Your task to perform on an android device: Go to ESPN.com Image 0: 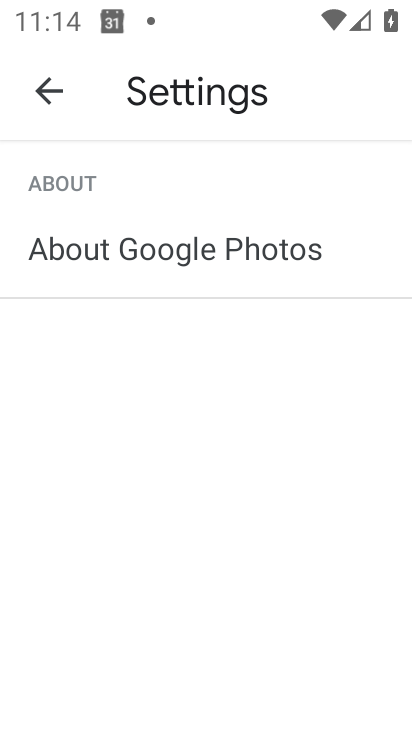
Step 0: press home button
Your task to perform on an android device: Go to ESPN.com Image 1: 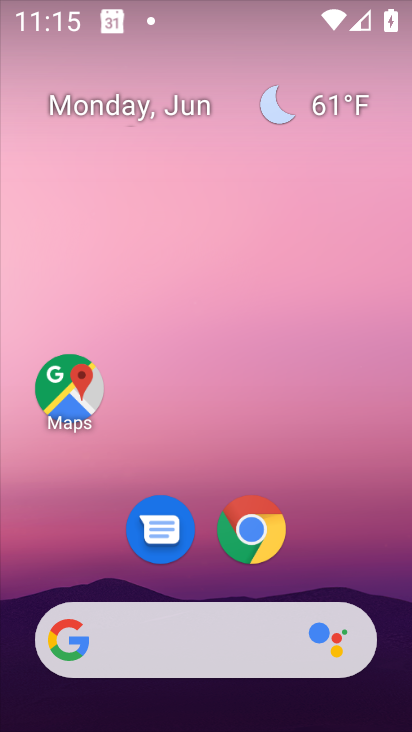
Step 1: click (265, 540)
Your task to perform on an android device: Go to ESPN.com Image 2: 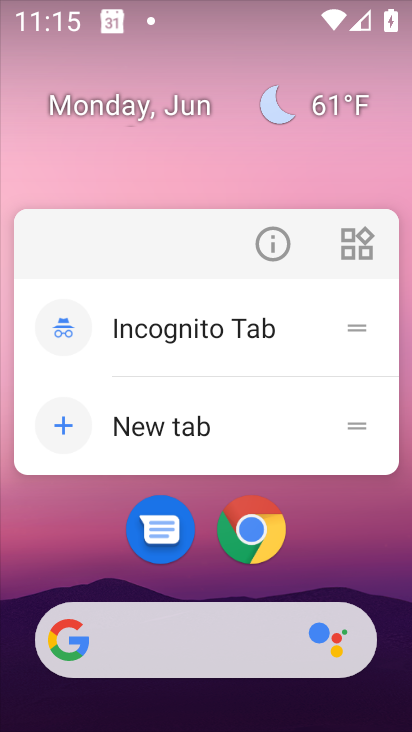
Step 2: click (265, 540)
Your task to perform on an android device: Go to ESPN.com Image 3: 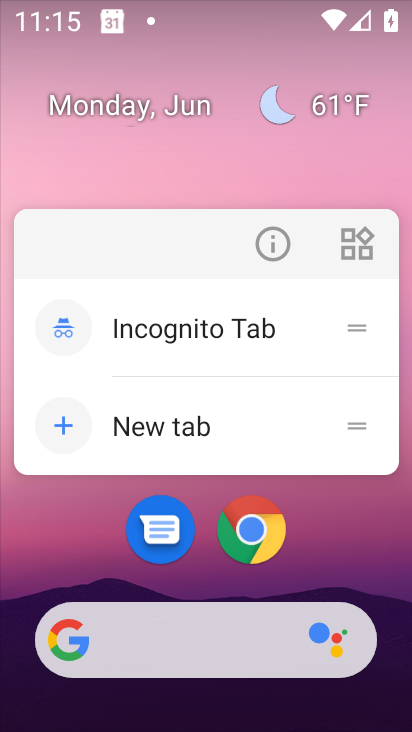
Step 3: click (260, 538)
Your task to perform on an android device: Go to ESPN.com Image 4: 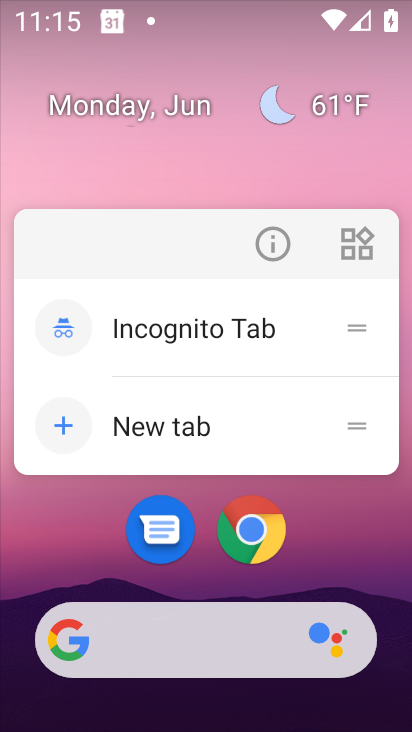
Step 4: click (251, 539)
Your task to perform on an android device: Go to ESPN.com Image 5: 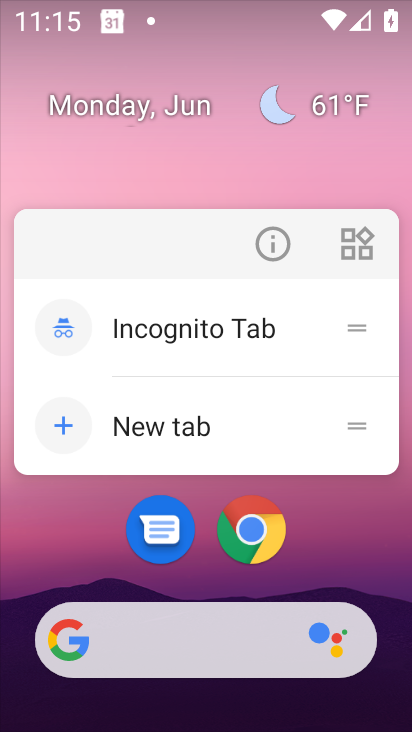
Step 5: click (255, 553)
Your task to perform on an android device: Go to ESPN.com Image 6: 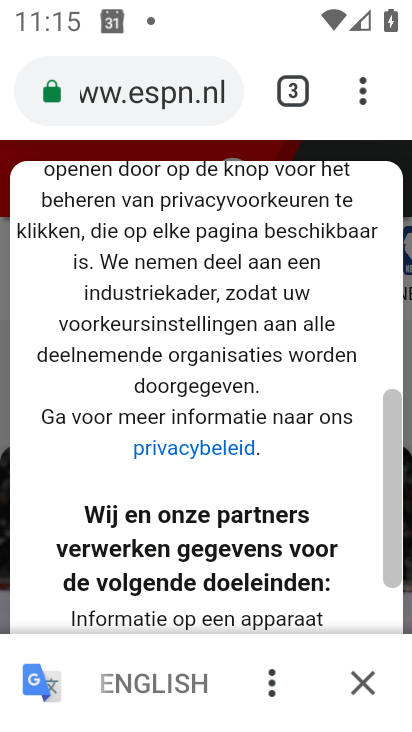
Step 6: click (370, 666)
Your task to perform on an android device: Go to ESPN.com Image 7: 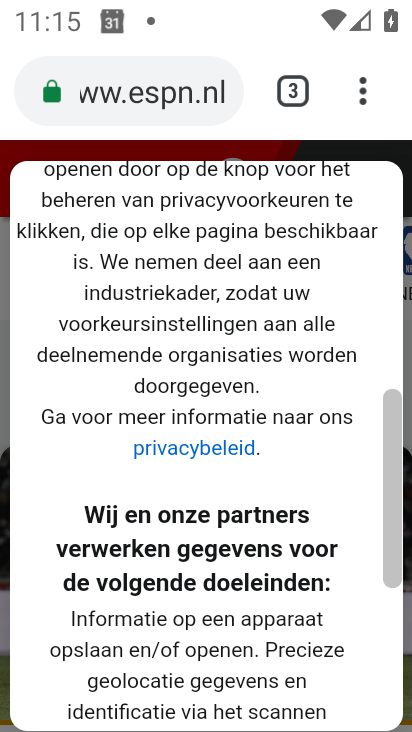
Step 7: drag from (268, 673) to (373, 292)
Your task to perform on an android device: Go to ESPN.com Image 8: 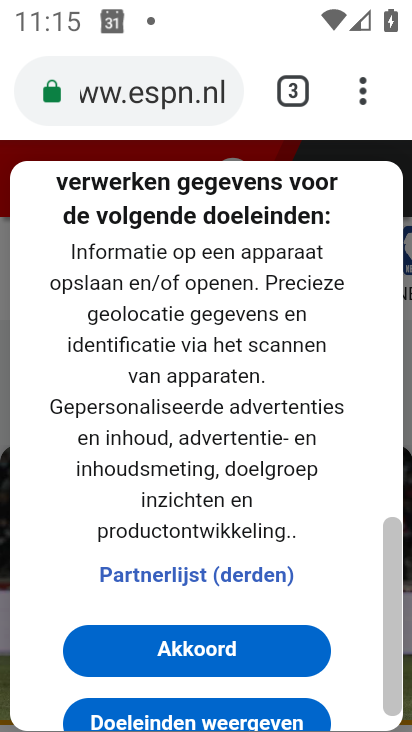
Step 8: click (247, 646)
Your task to perform on an android device: Go to ESPN.com Image 9: 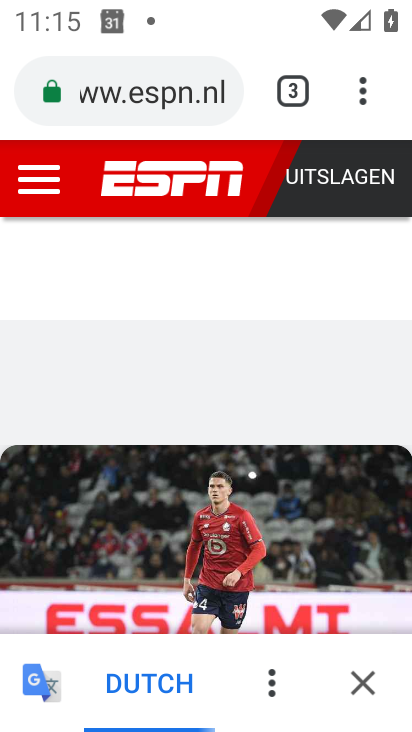
Step 9: task complete